Your task to perform on an android device: Add "corsair k70" to the cart on amazon Image 0: 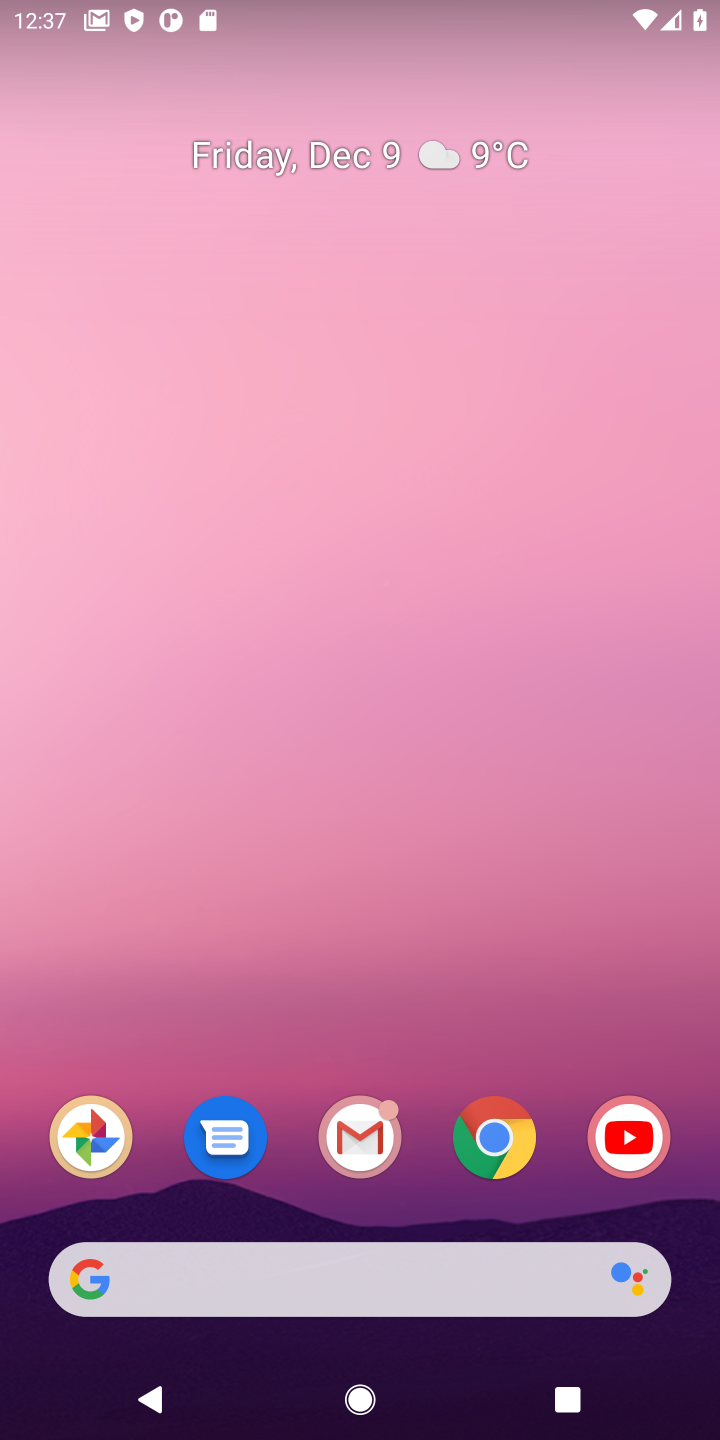
Step 0: click (351, 1301)
Your task to perform on an android device: Add "corsair k70" to the cart on amazon Image 1: 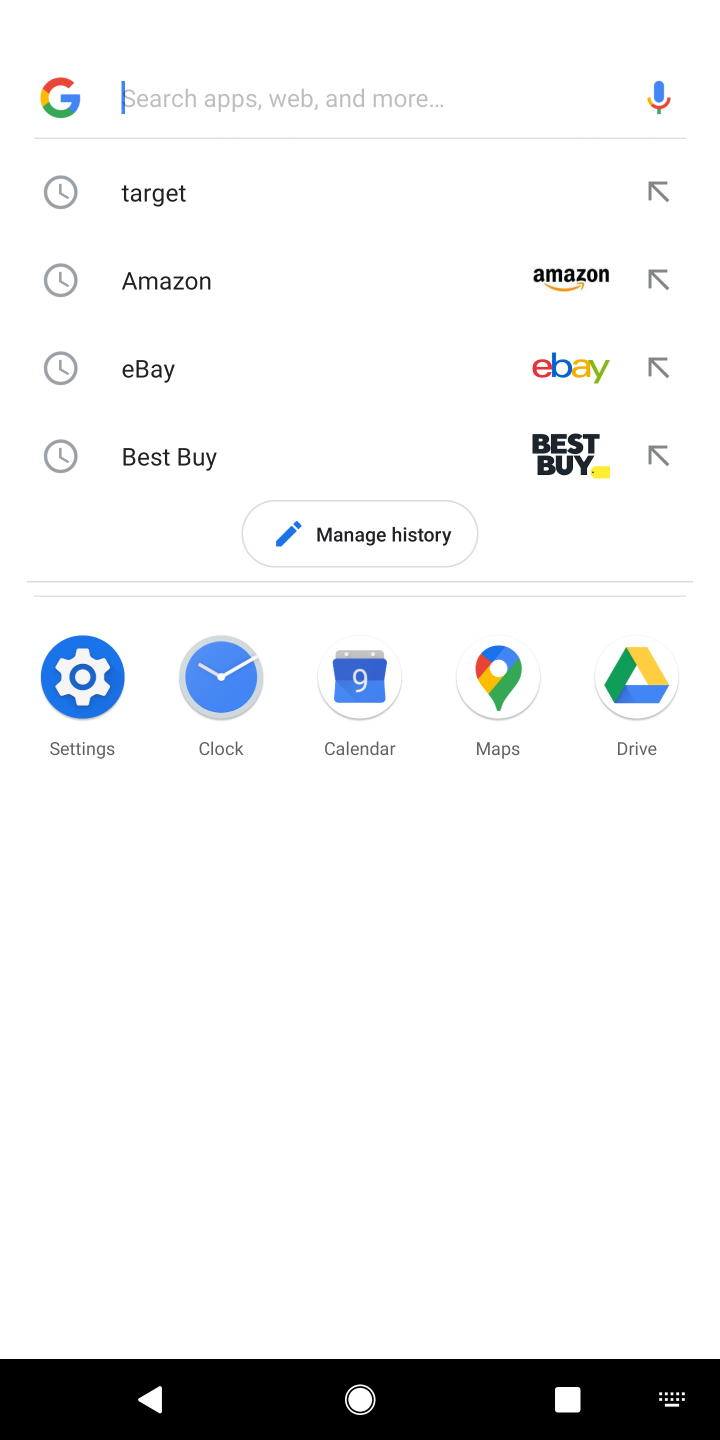
Step 1: type "amazon"
Your task to perform on an android device: Add "corsair k70" to the cart on amazon Image 2: 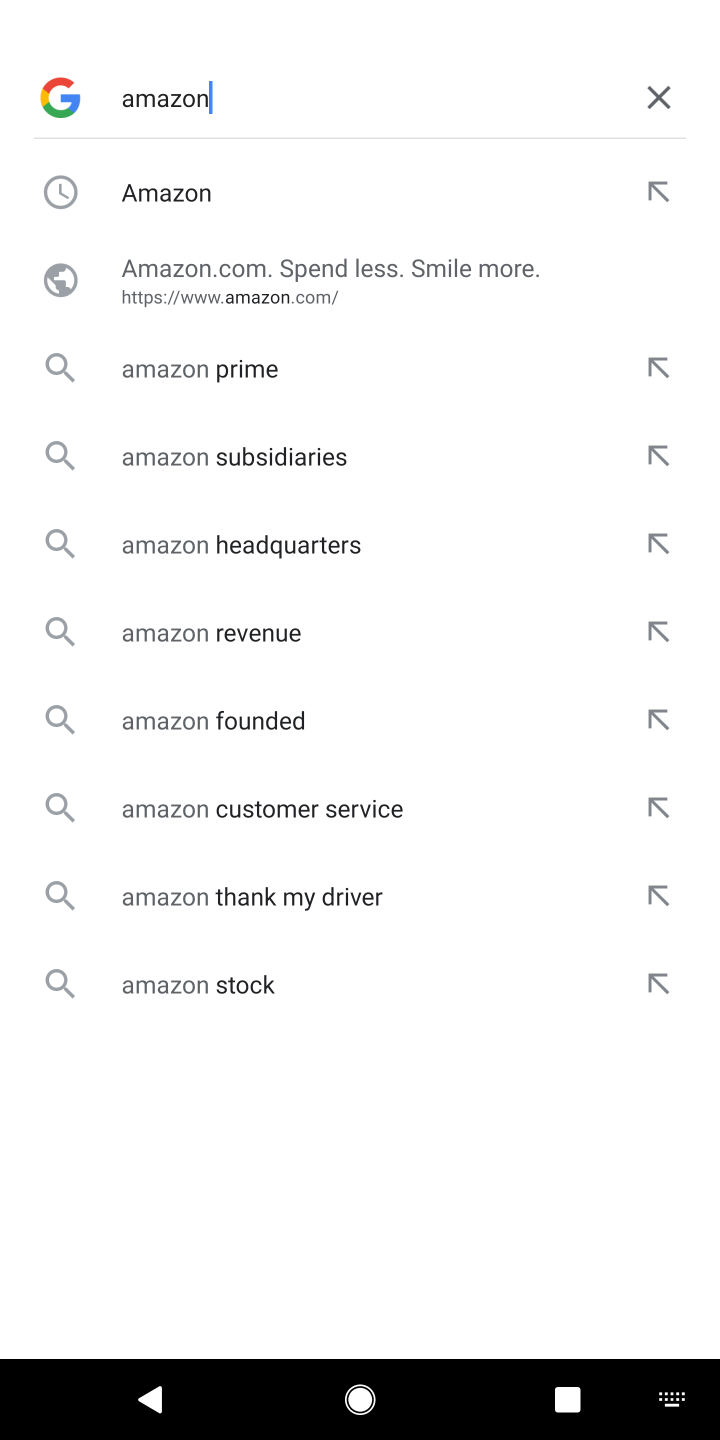
Step 2: click (217, 215)
Your task to perform on an android device: Add "corsair k70" to the cart on amazon Image 3: 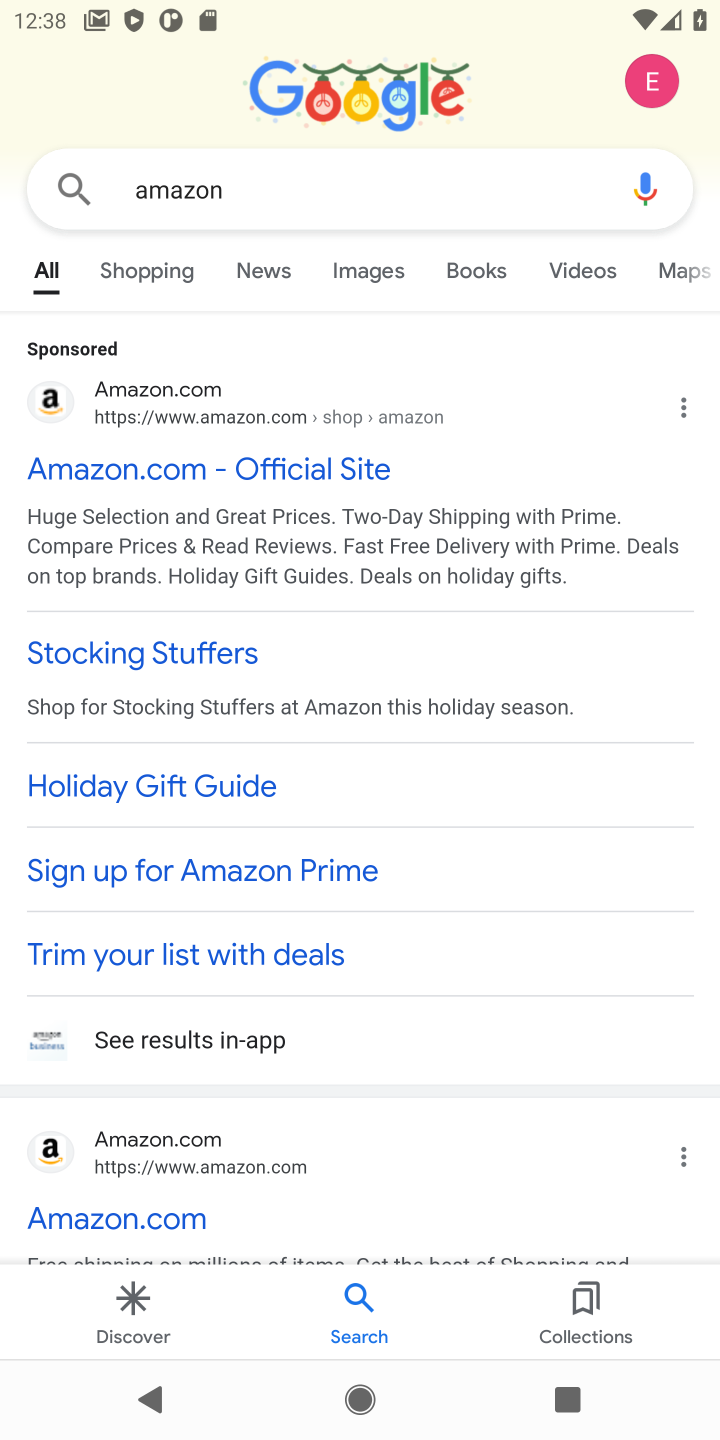
Step 3: click (168, 488)
Your task to perform on an android device: Add "corsair k70" to the cart on amazon Image 4: 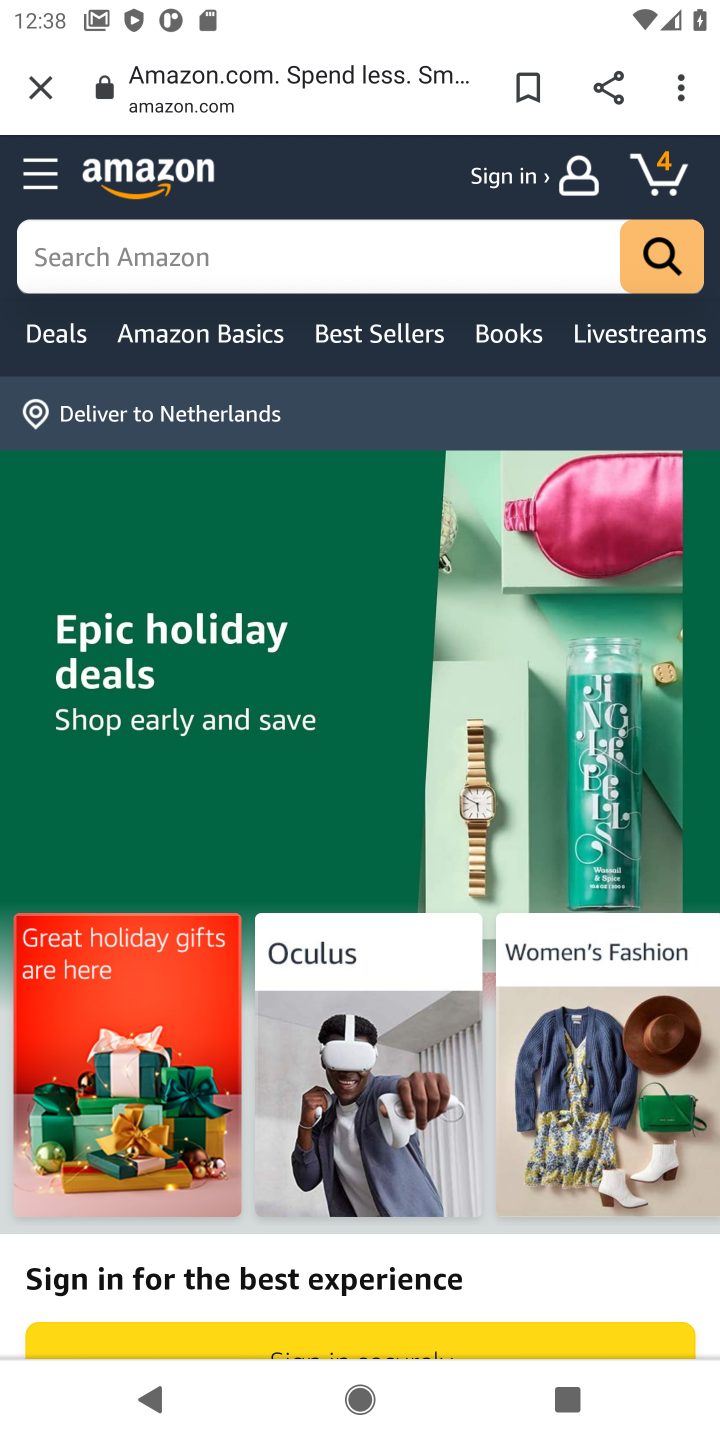
Step 4: click (170, 260)
Your task to perform on an android device: Add "corsair k70" to the cart on amazon Image 5: 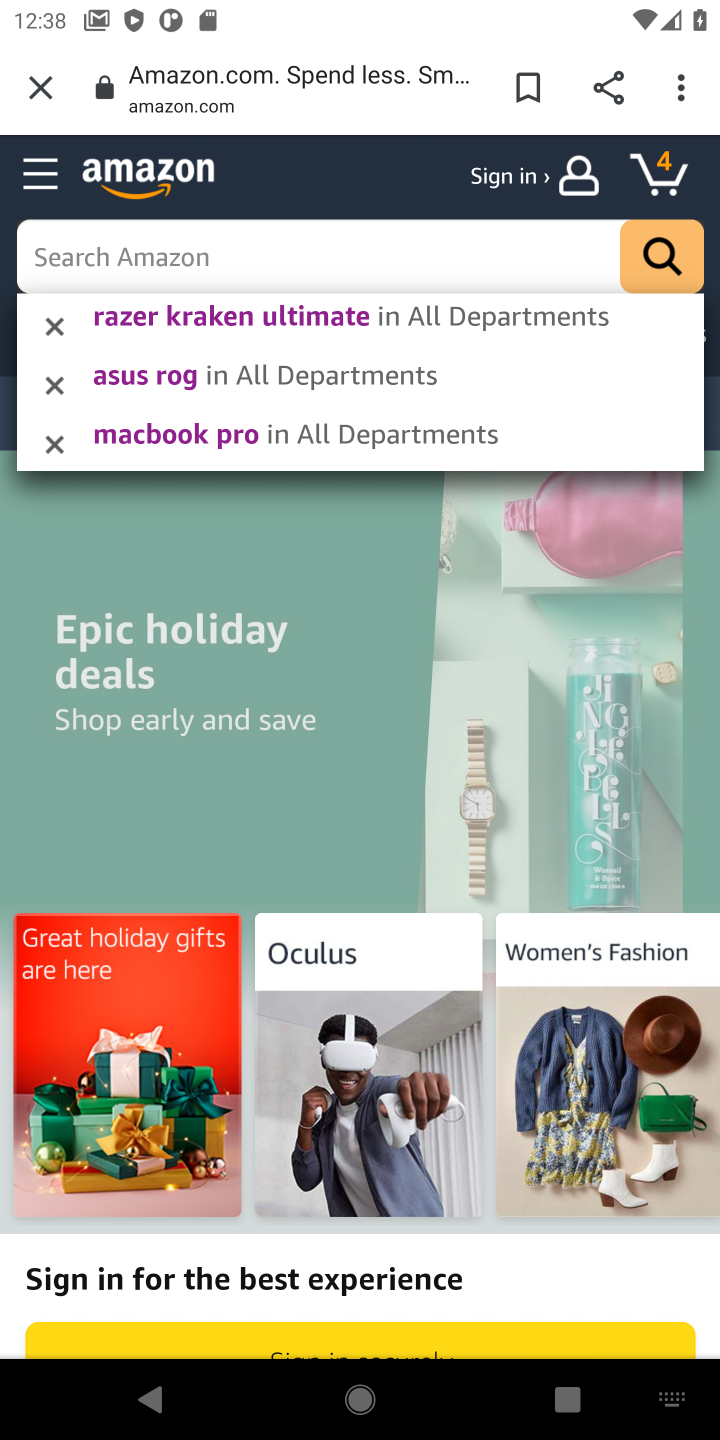
Step 5: type "corsair k70"
Your task to perform on an android device: Add "corsair k70" to the cart on amazon Image 6: 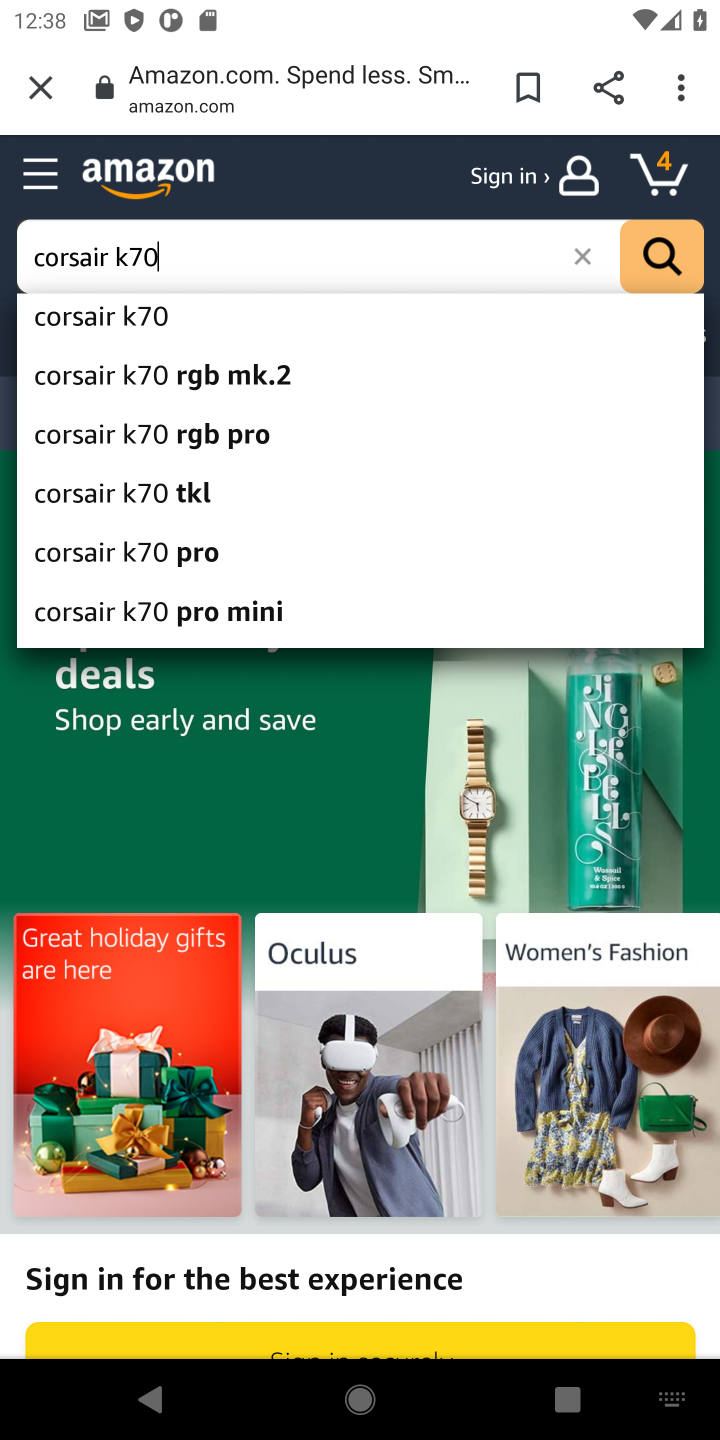
Step 6: click (176, 320)
Your task to perform on an android device: Add "corsair k70" to the cart on amazon Image 7: 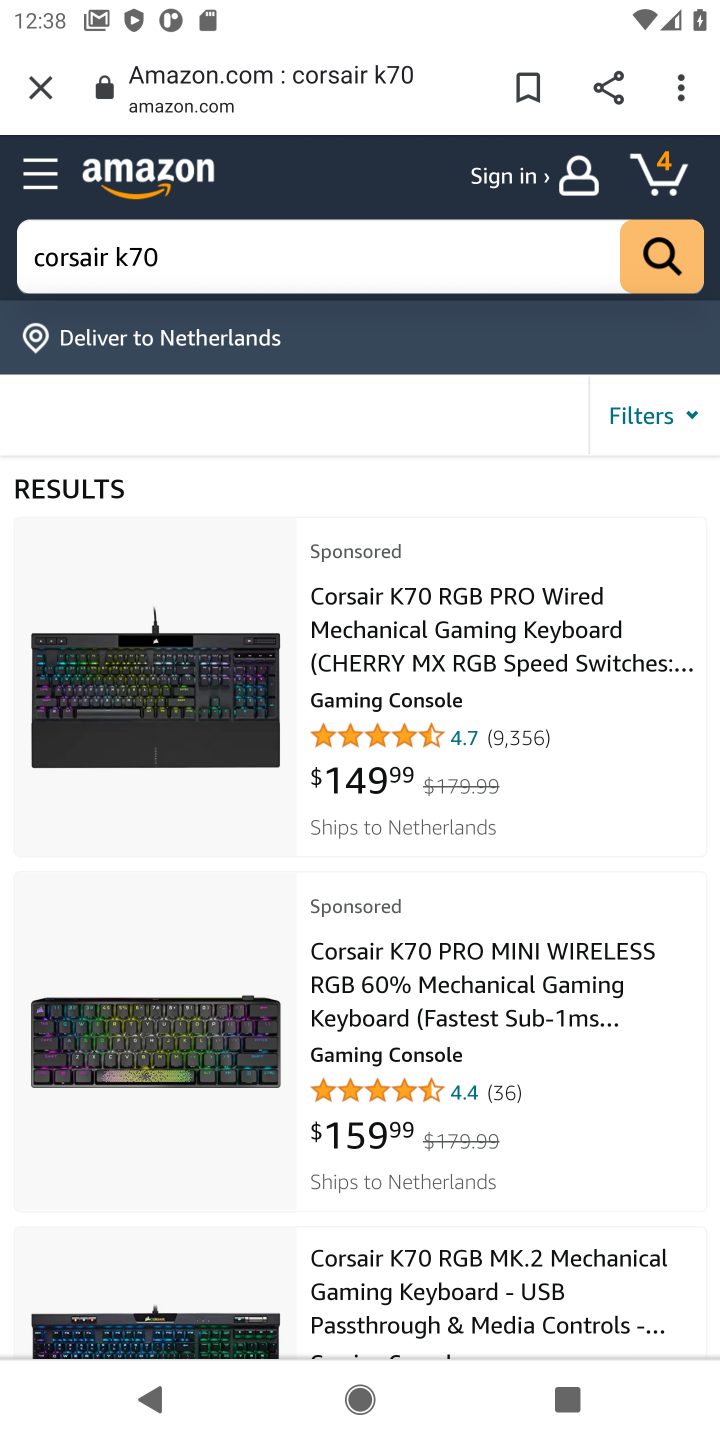
Step 7: click (394, 662)
Your task to perform on an android device: Add "corsair k70" to the cart on amazon Image 8: 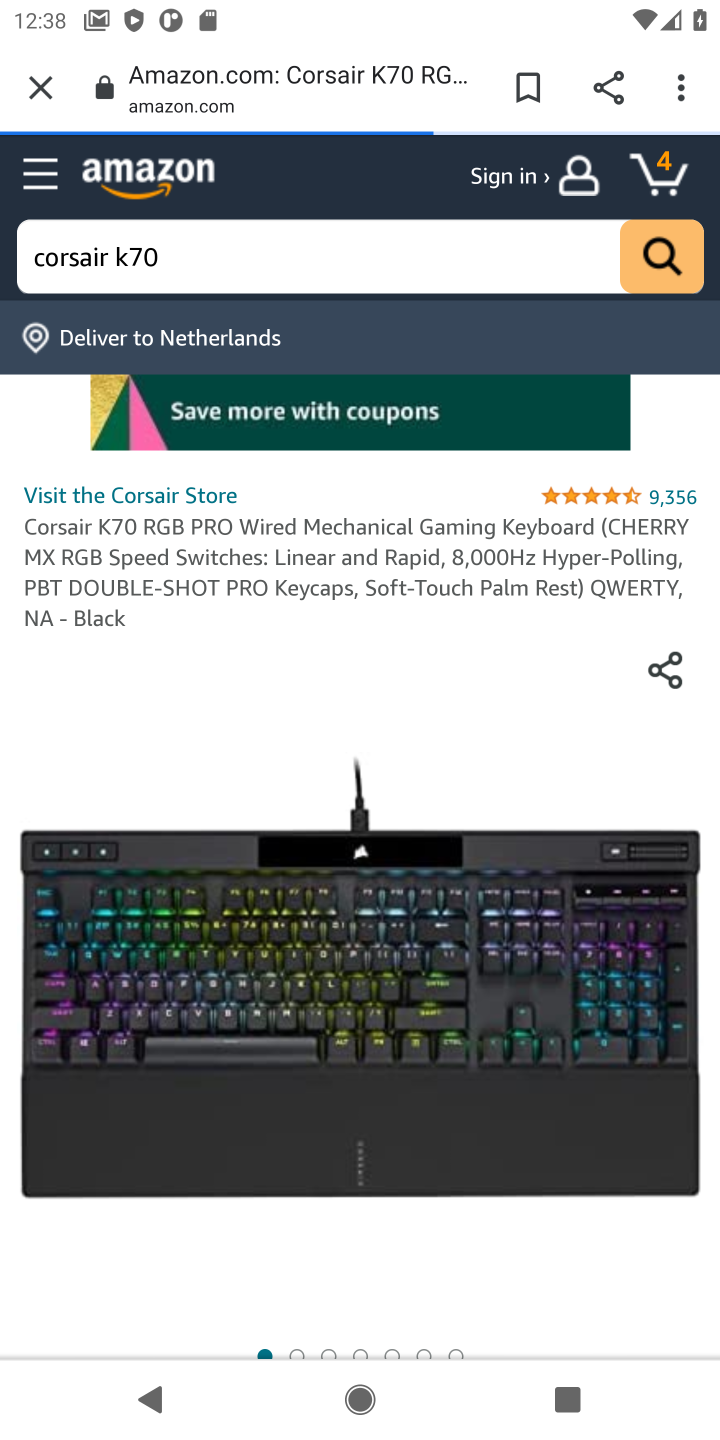
Step 8: drag from (379, 1118) to (373, 367)
Your task to perform on an android device: Add "corsair k70" to the cart on amazon Image 9: 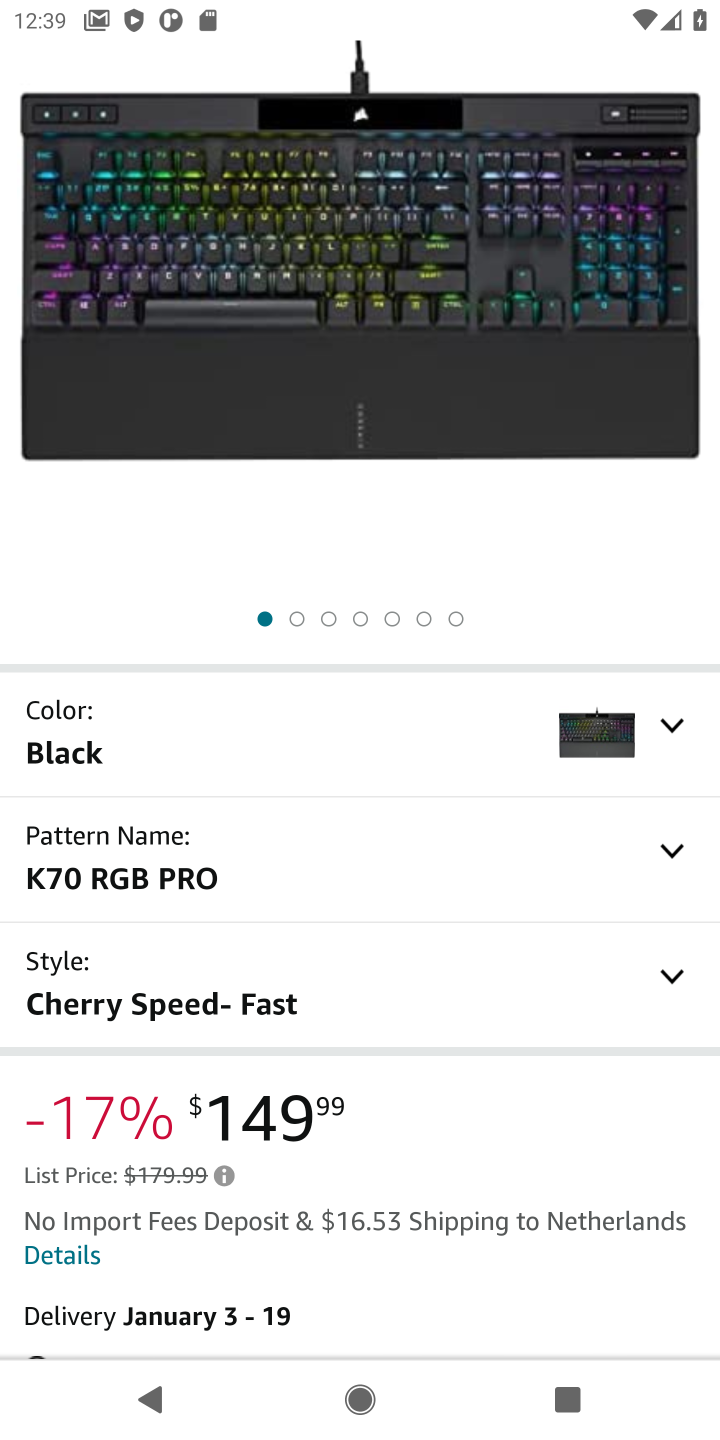
Step 9: drag from (392, 1258) to (330, 144)
Your task to perform on an android device: Add "corsair k70" to the cart on amazon Image 10: 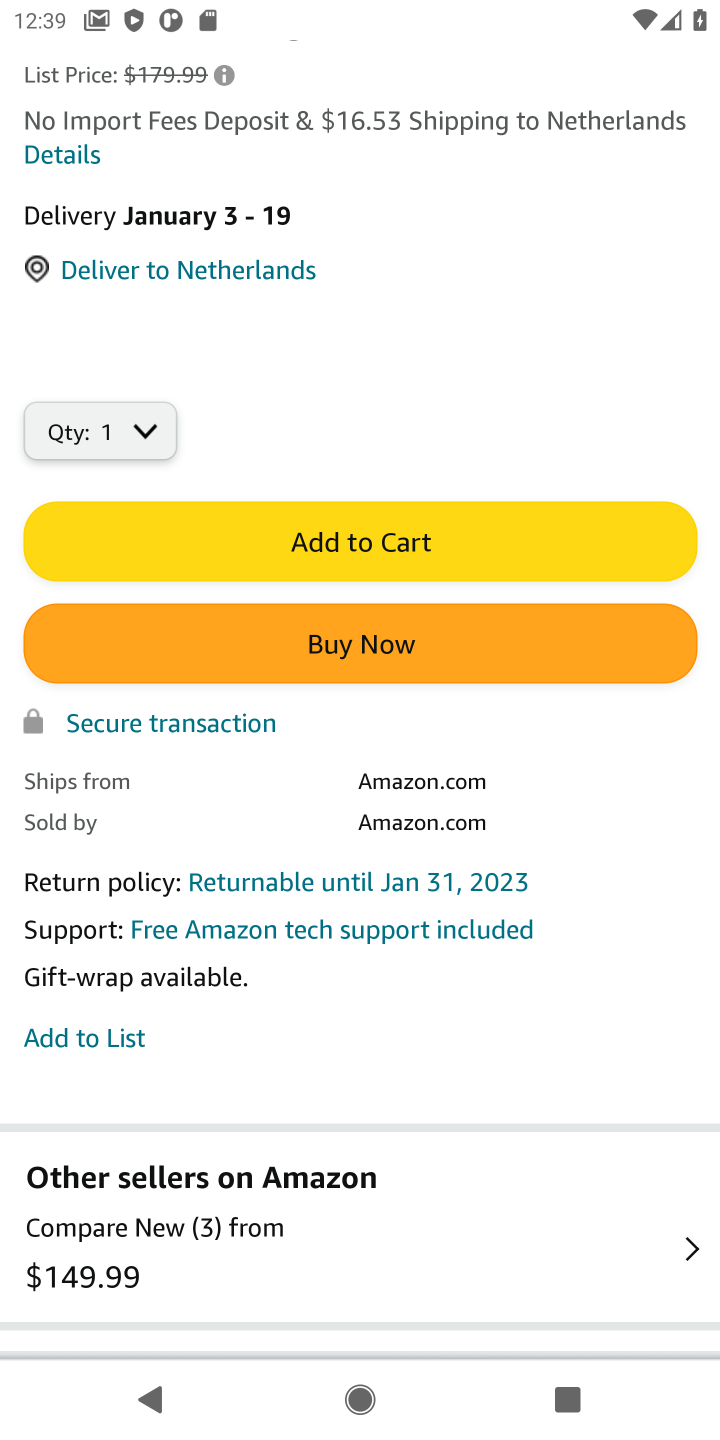
Step 10: click (442, 539)
Your task to perform on an android device: Add "corsair k70" to the cart on amazon Image 11: 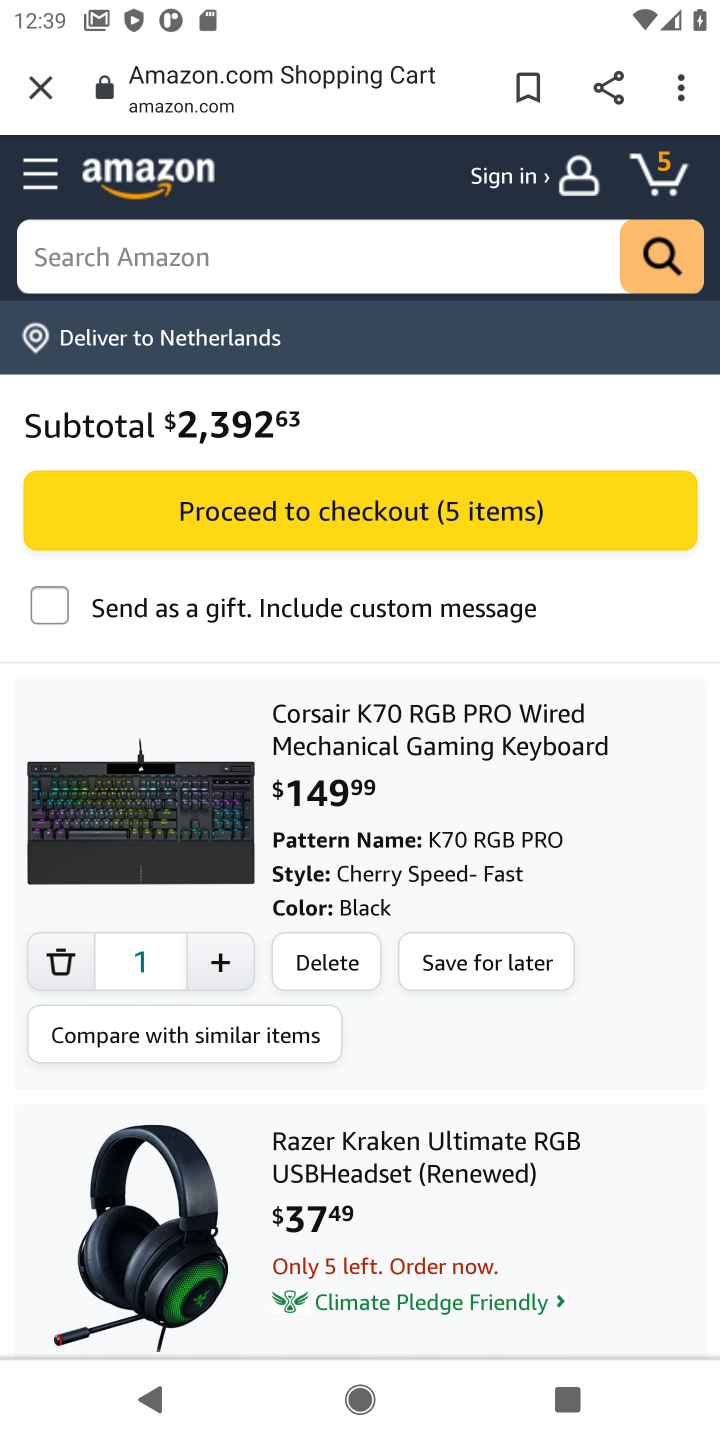
Step 11: task complete